Your task to perform on an android device: Is it going to rain this weekend? Image 0: 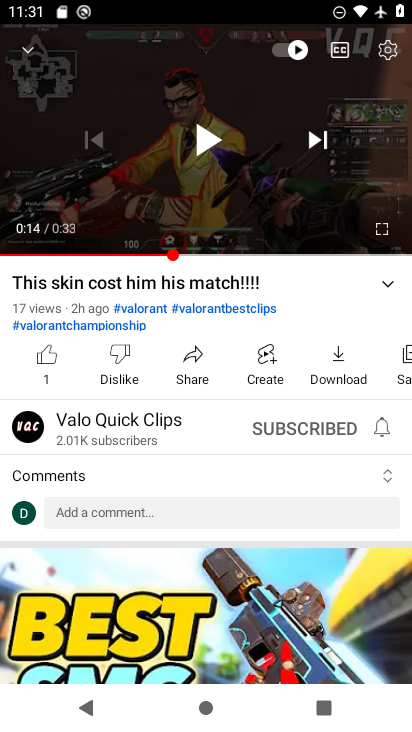
Step 0: press home button
Your task to perform on an android device: Is it going to rain this weekend? Image 1: 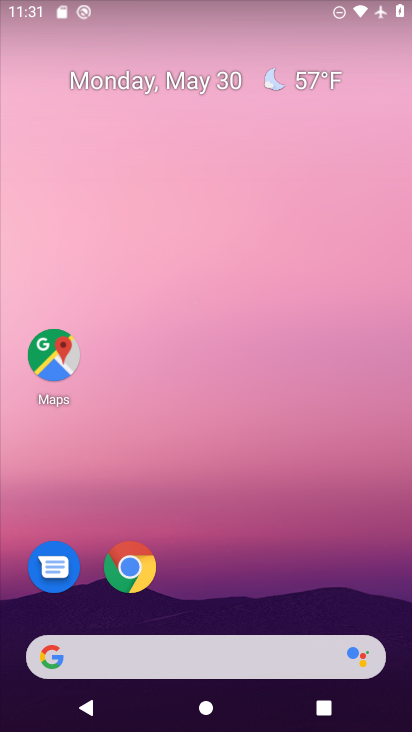
Step 1: drag from (224, 585) to (217, 123)
Your task to perform on an android device: Is it going to rain this weekend? Image 2: 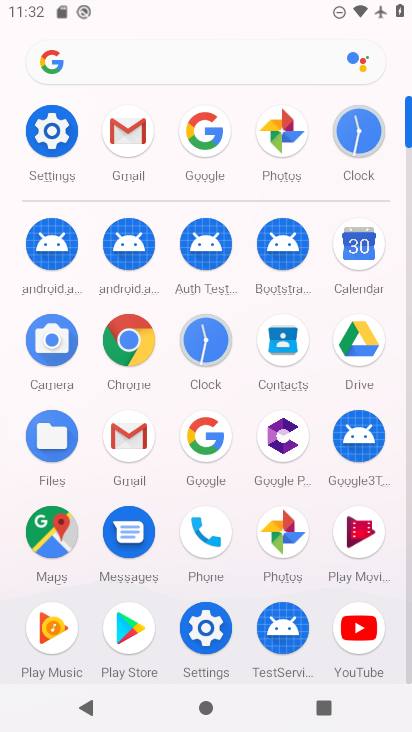
Step 2: click (189, 447)
Your task to perform on an android device: Is it going to rain this weekend? Image 3: 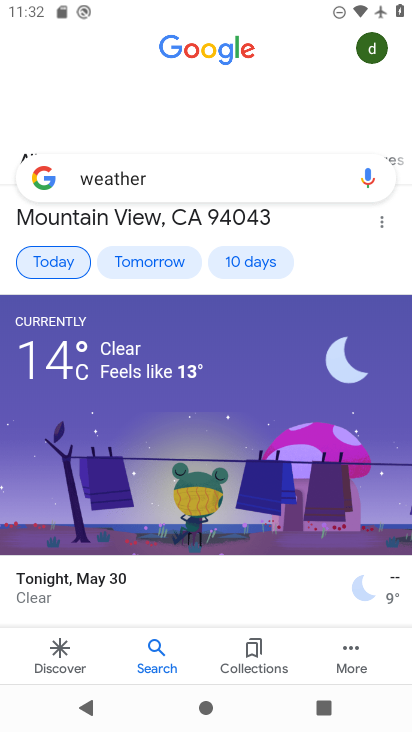
Step 3: click (241, 266)
Your task to perform on an android device: Is it going to rain this weekend? Image 4: 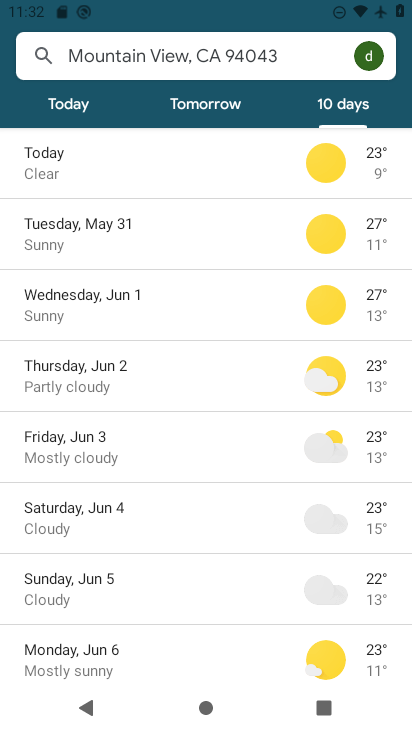
Step 4: task complete